Your task to perform on an android device: Open the stopwatch Image 0: 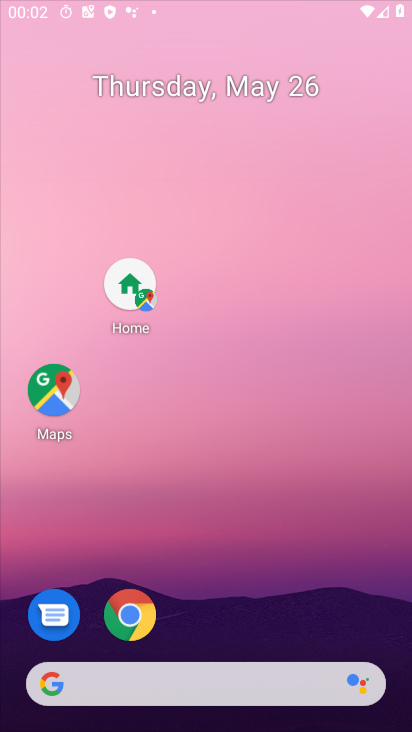
Step 0: press home button
Your task to perform on an android device: Open the stopwatch Image 1: 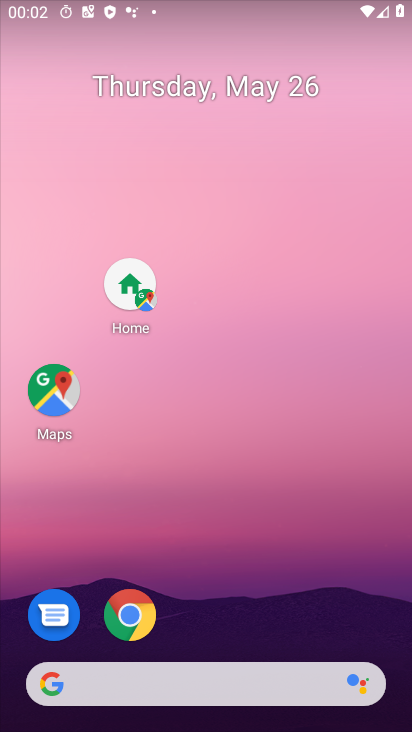
Step 1: drag from (261, 641) to (263, 210)
Your task to perform on an android device: Open the stopwatch Image 2: 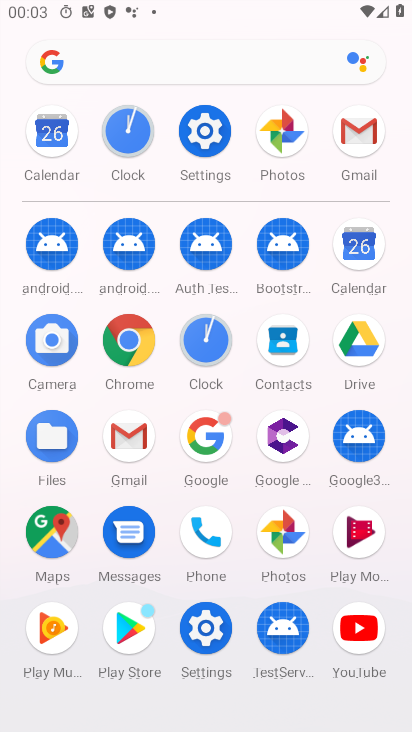
Step 2: click (134, 144)
Your task to perform on an android device: Open the stopwatch Image 3: 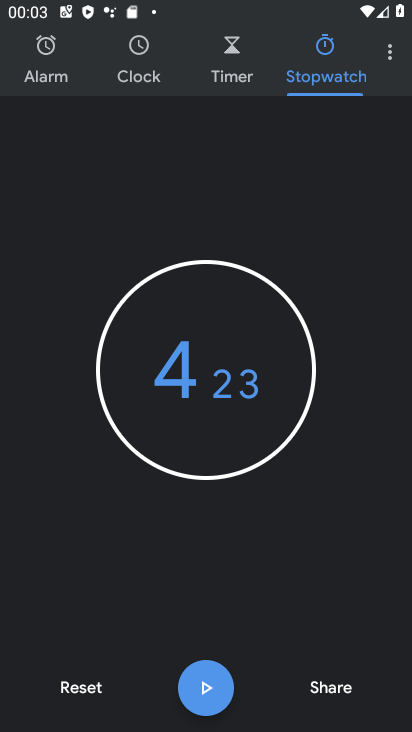
Step 3: click (318, 57)
Your task to perform on an android device: Open the stopwatch Image 4: 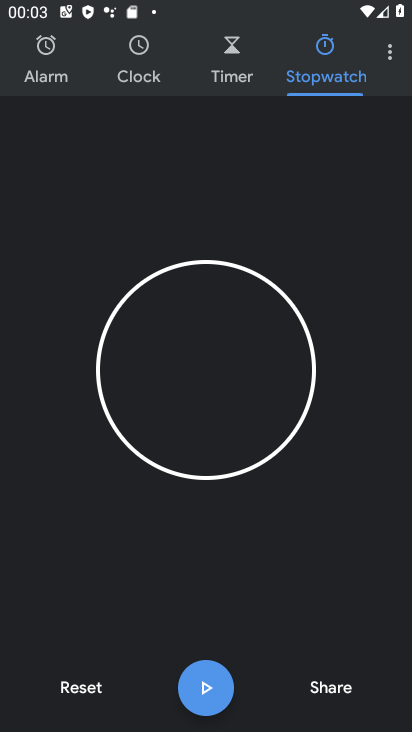
Step 4: task complete